Your task to perform on an android device: set an alarm Image 0: 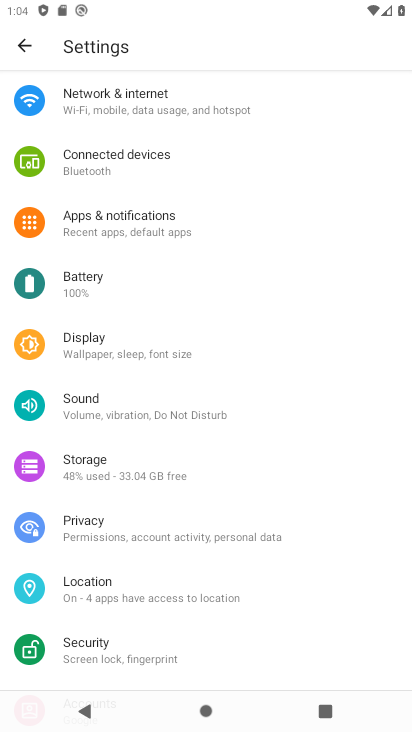
Step 0: press home button
Your task to perform on an android device: set an alarm Image 1: 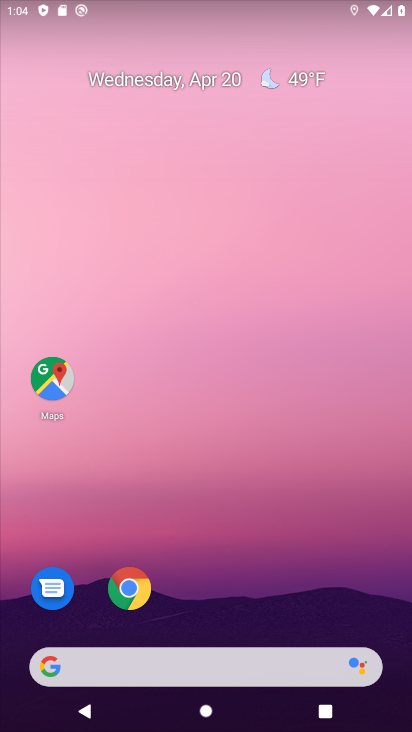
Step 1: drag from (156, 649) to (312, 157)
Your task to perform on an android device: set an alarm Image 2: 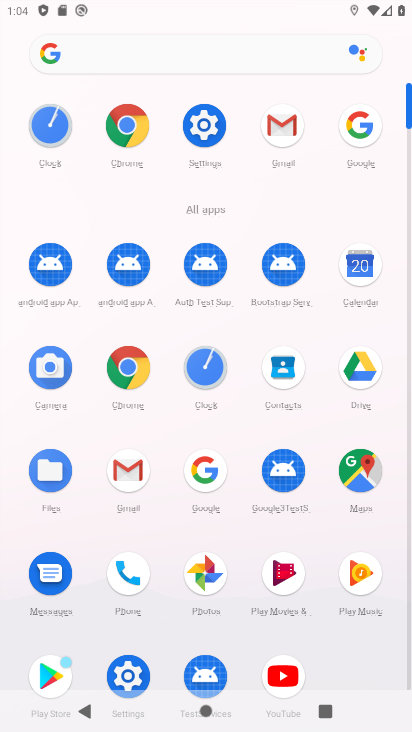
Step 2: click (212, 372)
Your task to perform on an android device: set an alarm Image 3: 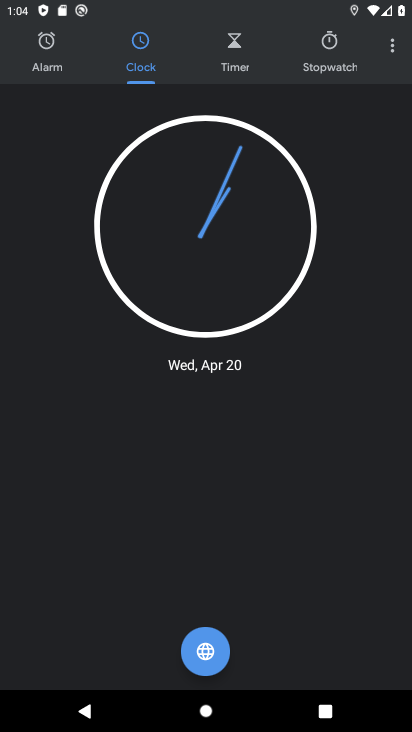
Step 3: click (56, 67)
Your task to perform on an android device: set an alarm Image 4: 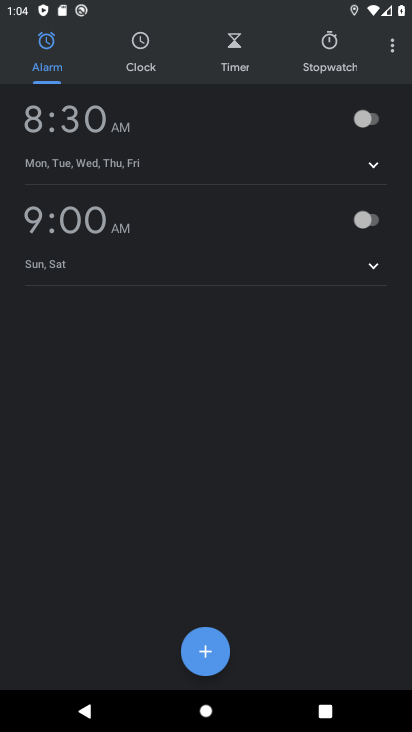
Step 4: click (113, 124)
Your task to perform on an android device: set an alarm Image 5: 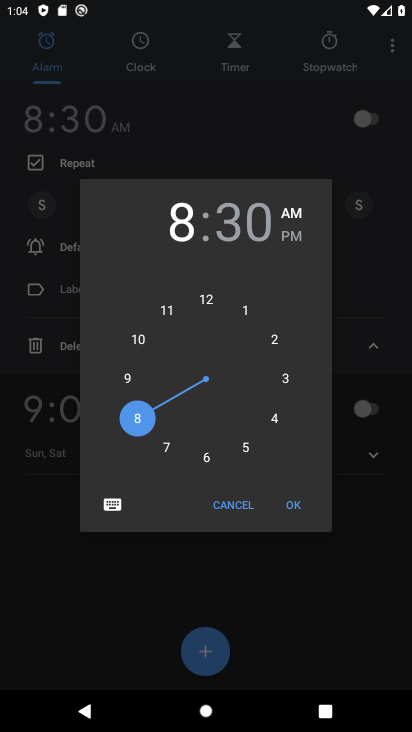
Step 5: click (128, 373)
Your task to perform on an android device: set an alarm Image 6: 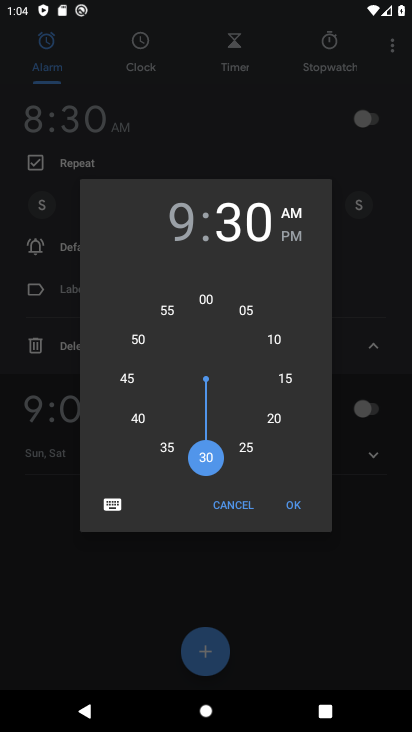
Step 6: click (298, 239)
Your task to perform on an android device: set an alarm Image 7: 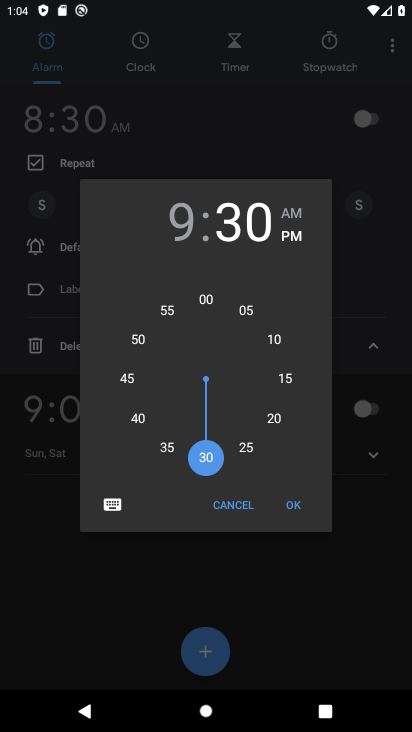
Step 7: click (294, 509)
Your task to perform on an android device: set an alarm Image 8: 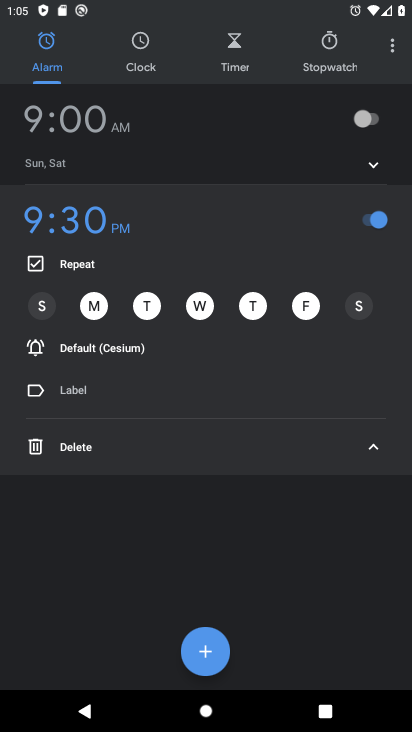
Step 8: task complete